Your task to perform on an android device: What's the weather going to be this weekend? Image 0: 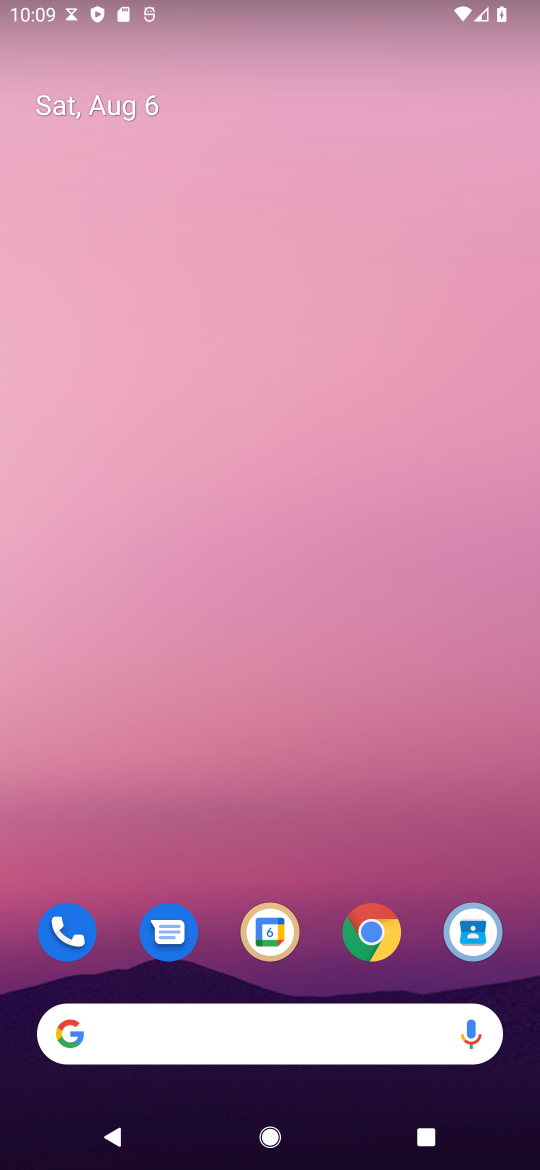
Step 0: drag from (260, 1030) to (250, 352)
Your task to perform on an android device: What's the weather going to be this weekend? Image 1: 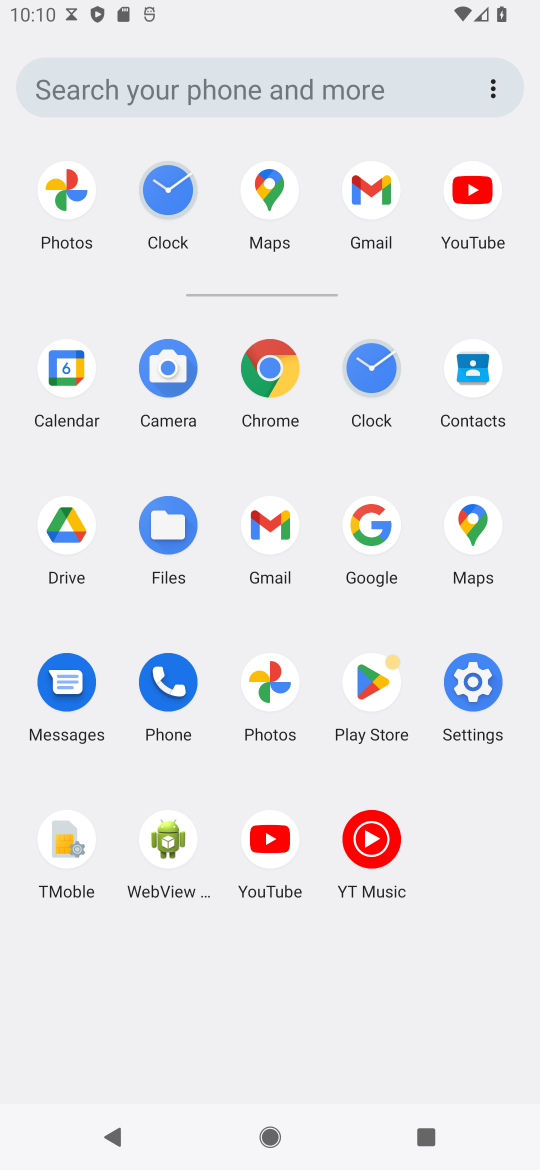
Step 1: click (367, 524)
Your task to perform on an android device: What's the weather going to be this weekend? Image 2: 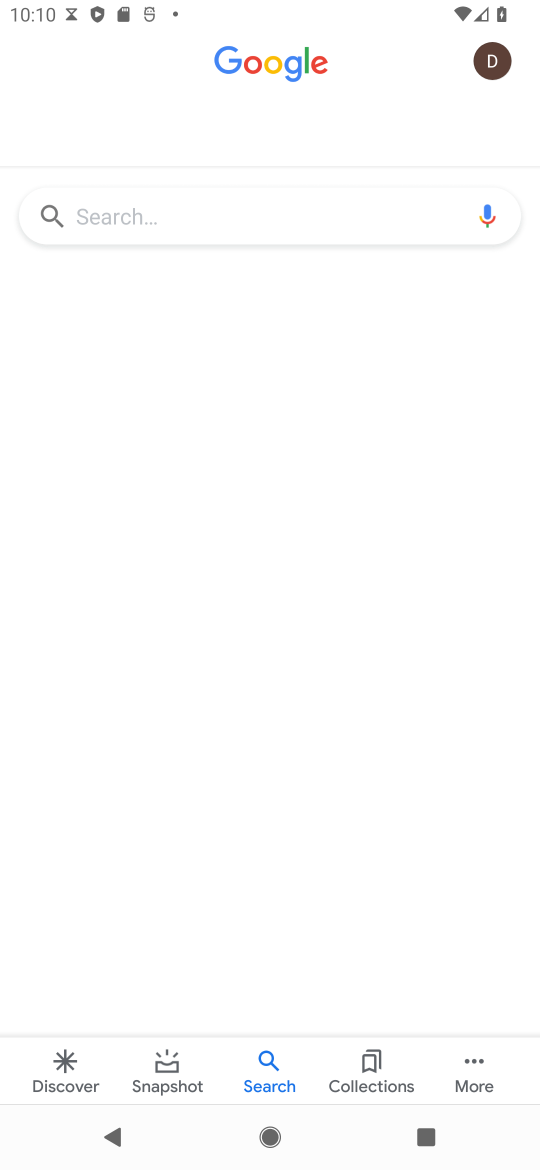
Step 2: click (291, 222)
Your task to perform on an android device: What's the weather going to be this weekend? Image 3: 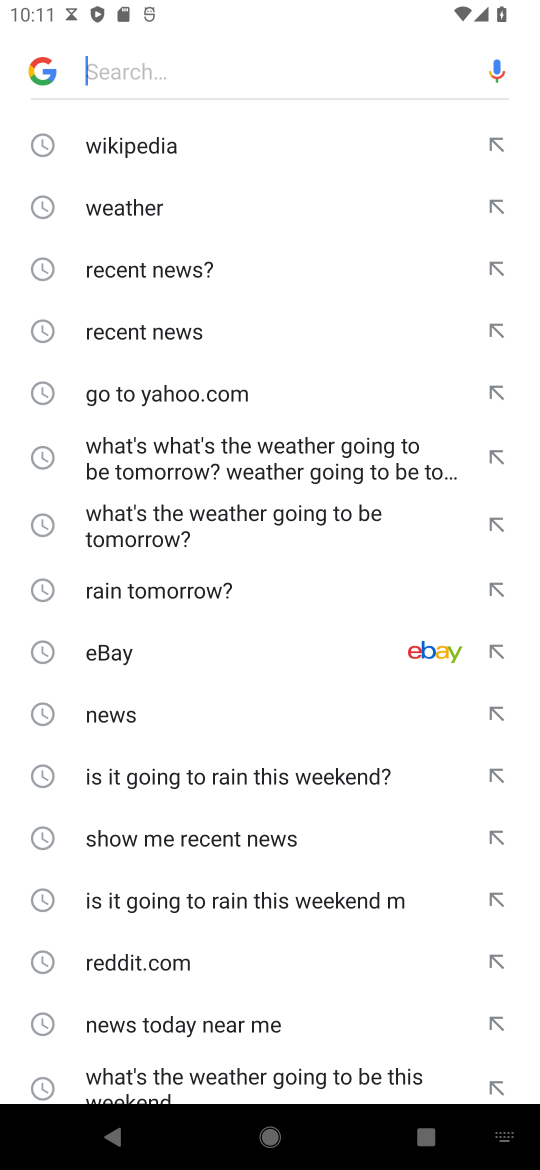
Step 3: type "What's the weather going to be this weekend?"
Your task to perform on an android device: What's the weather going to be this weekend? Image 4: 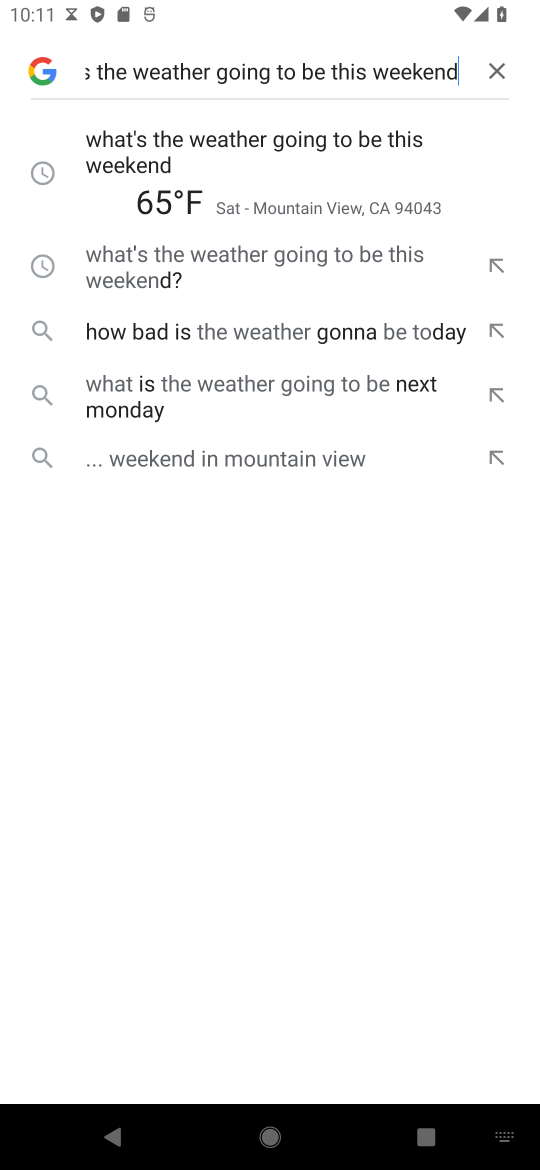
Step 4: type ""
Your task to perform on an android device: What's the weather going to be this weekend? Image 5: 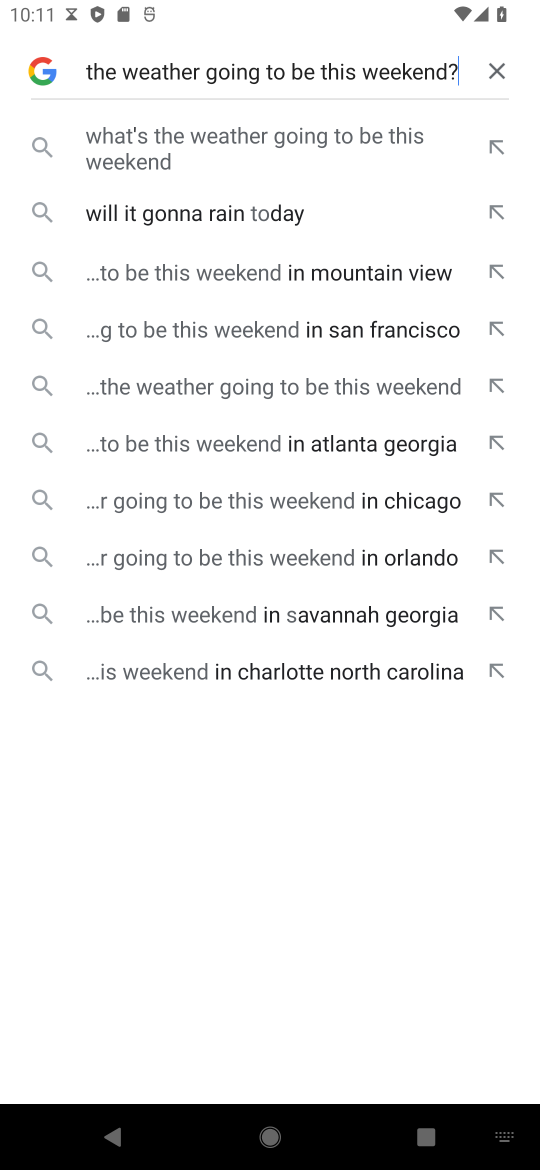
Step 5: click (223, 143)
Your task to perform on an android device: What's the weather going to be this weekend? Image 6: 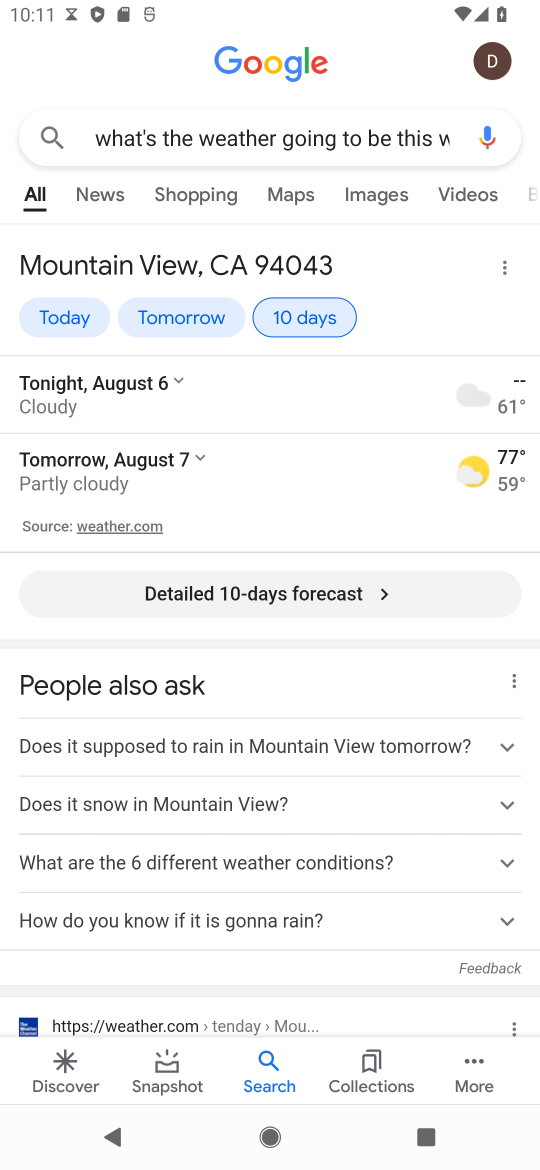
Step 6: task complete